Your task to perform on an android device: Go to Wikipedia Image 0: 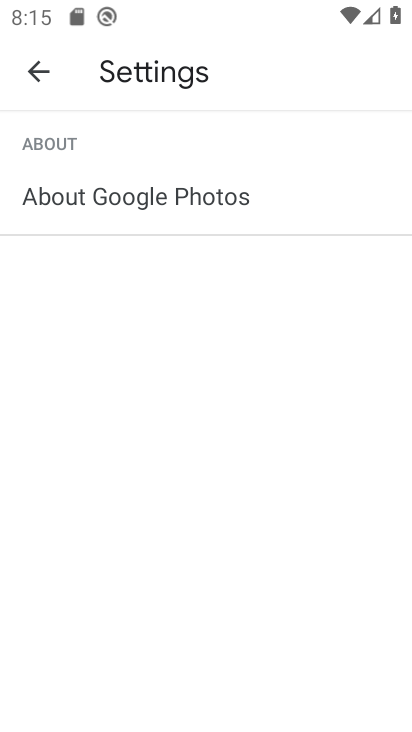
Step 0: press home button
Your task to perform on an android device: Go to Wikipedia Image 1: 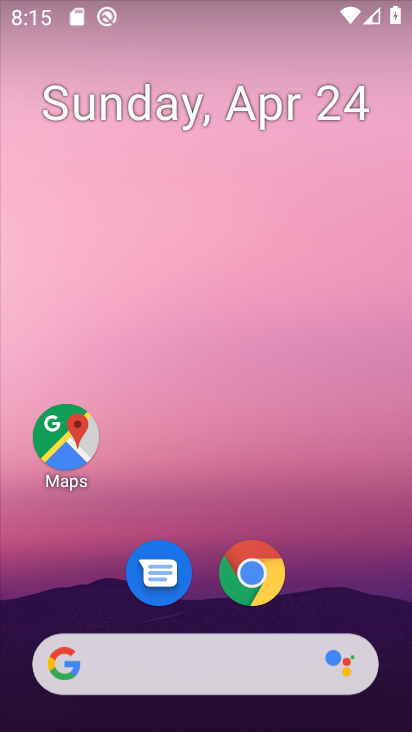
Step 1: click (254, 576)
Your task to perform on an android device: Go to Wikipedia Image 2: 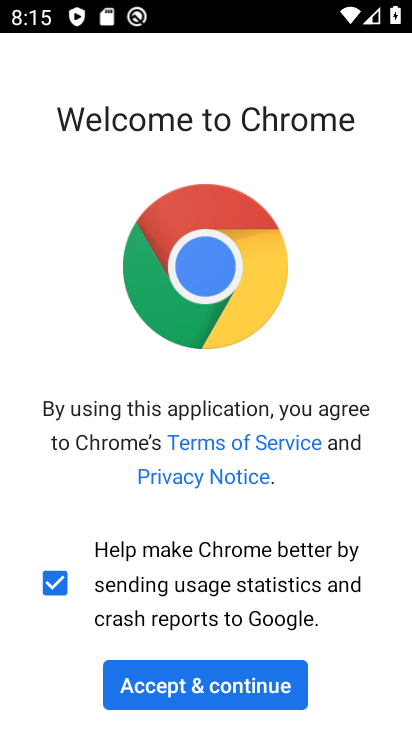
Step 2: click (203, 689)
Your task to perform on an android device: Go to Wikipedia Image 3: 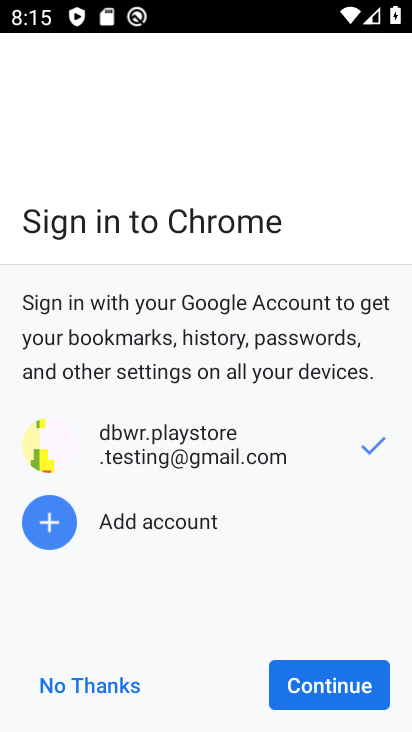
Step 3: click (312, 682)
Your task to perform on an android device: Go to Wikipedia Image 4: 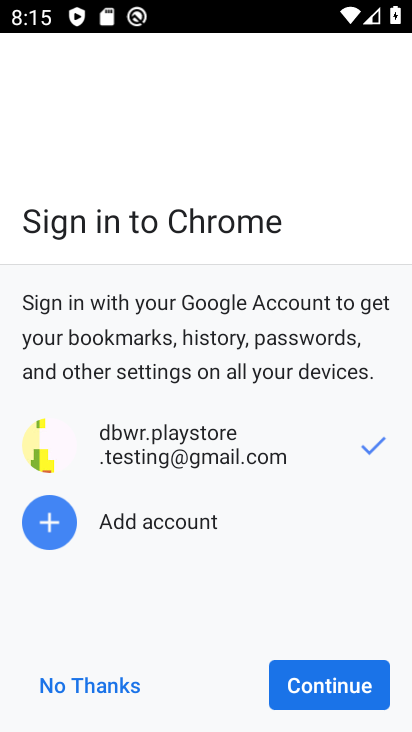
Step 4: click (319, 696)
Your task to perform on an android device: Go to Wikipedia Image 5: 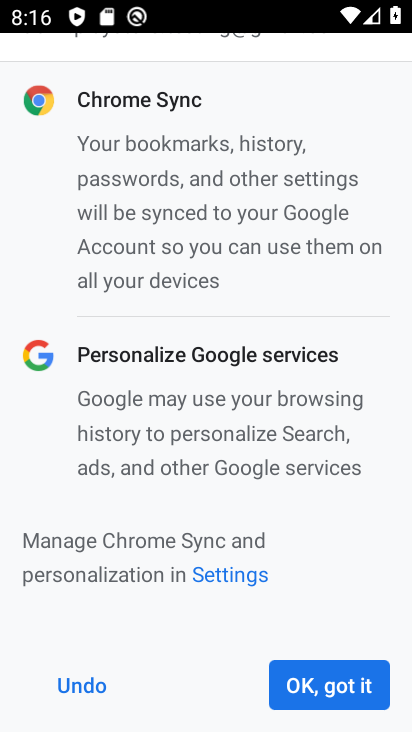
Step 5: click (327, 680)
Your task to perform on an android device: Go to Wikipedia Image 6: 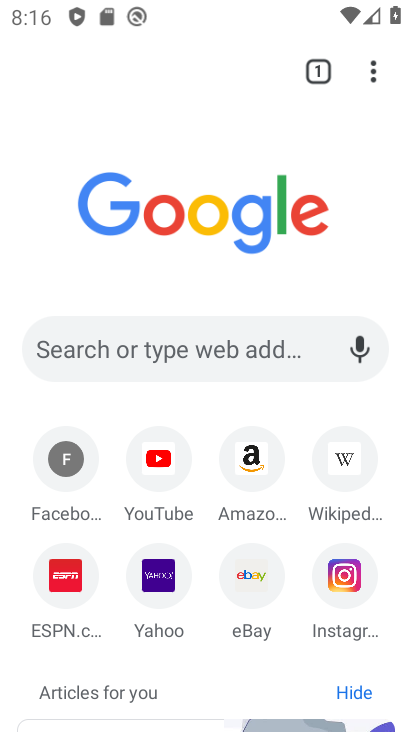
Step 6: click (335, 457)
Your task to perform on an android device: Go to Wikipedia Image 7: 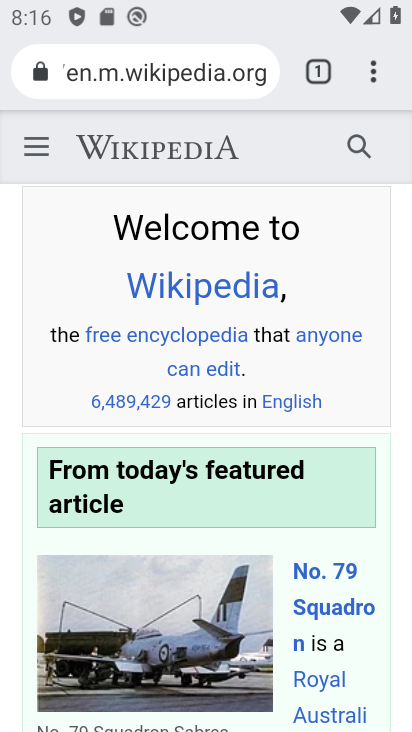
Step 7: task complete